Your task to perform on an android device: visit the assistant section in the google photos Image 0: 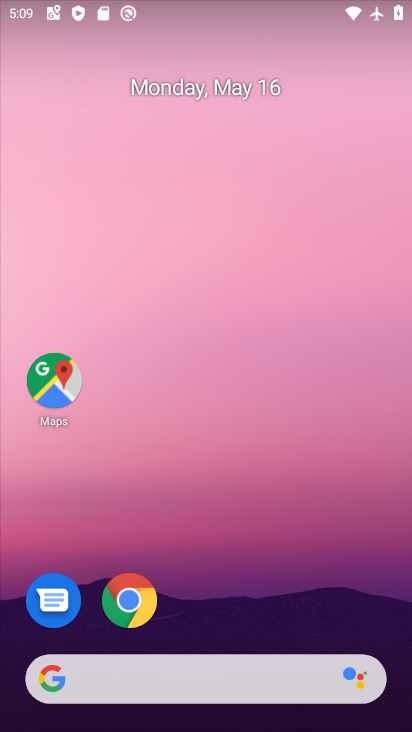
Step 0: drag from (252, 637) to (198, 8)
Your task to perform on an android device: visit the assistant section in the google photos Image 1: 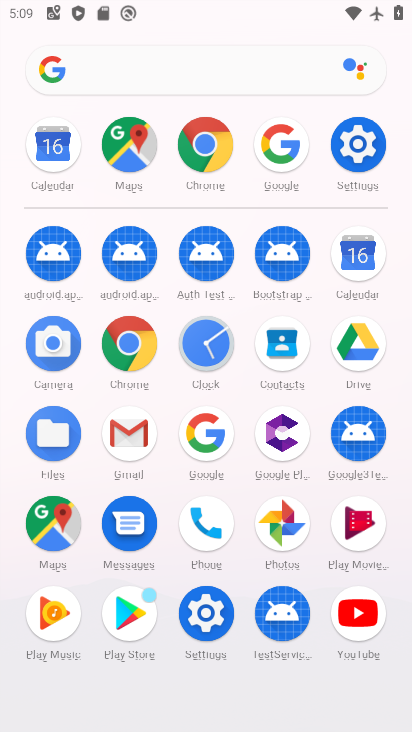
Step 1: click (276, 530)
Your task to perform on an android device: visit the assistant section in the google photos Image 2: 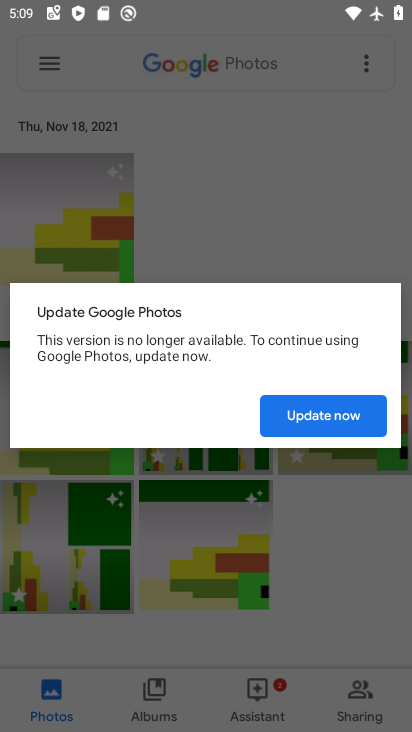
Step 2: click (364, 411)
Your task to perform on an android device: visit the assistant section in the google photos Image 3: 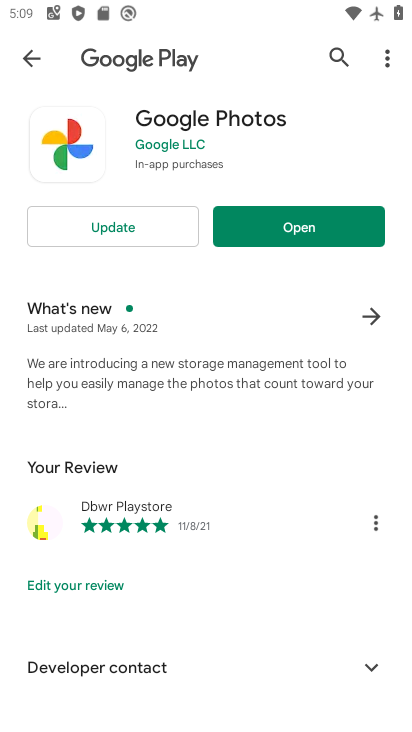
Step 3: click (288, 216)
Your task to perform on an android device: visit the assistant section in the google photos Image 4: 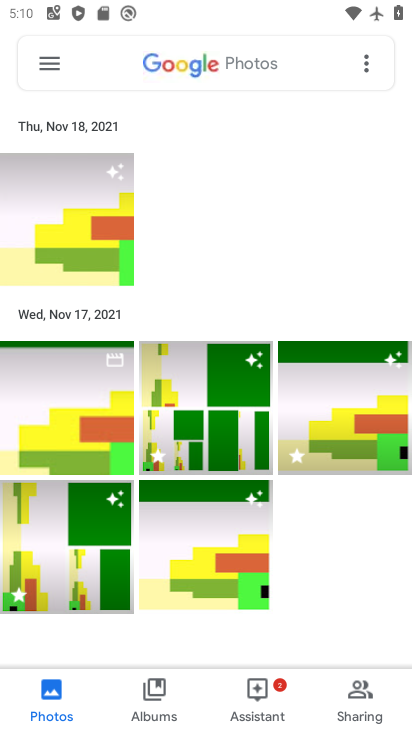
Step 4: click (241, 695)
Your task to perform on an android device: visit the assistant section in the google photos Image 5: 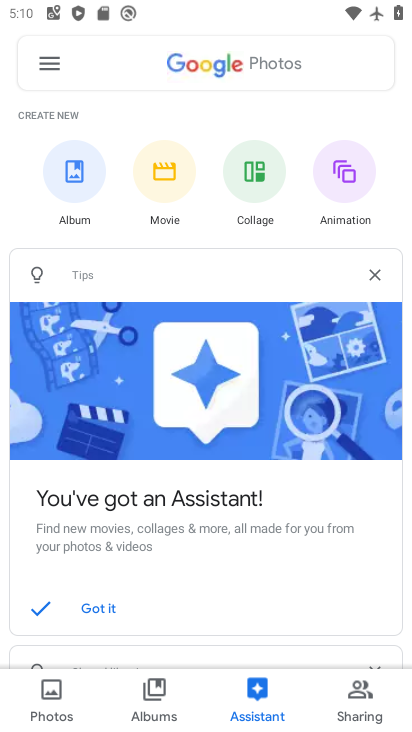
Step 5: task complete